Your task to perform on an android device: Go to sound settings Image 0: 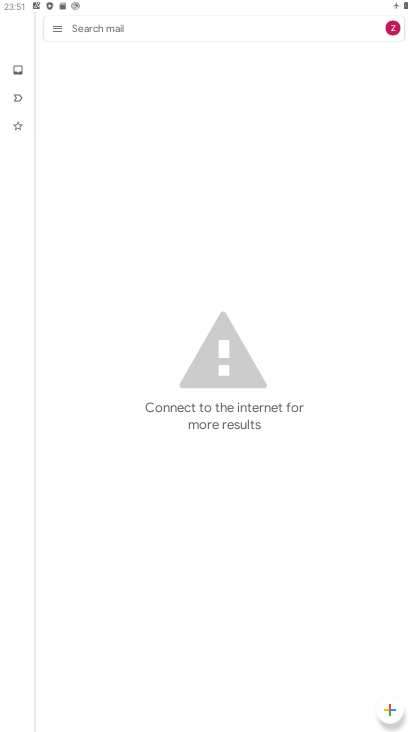
Step 0: press home button
Your task to perform on an android device: Go to sound settings Image 1: 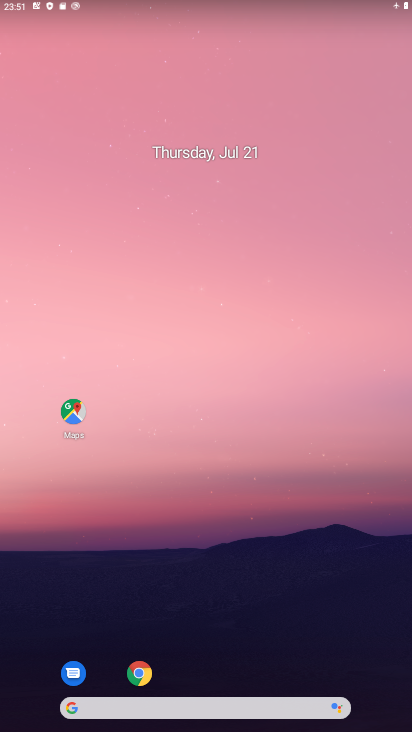
Step 1: drag from (214, 639) to (218, 229)
Your task to perform on an android device: Go to sound settings Image 2: 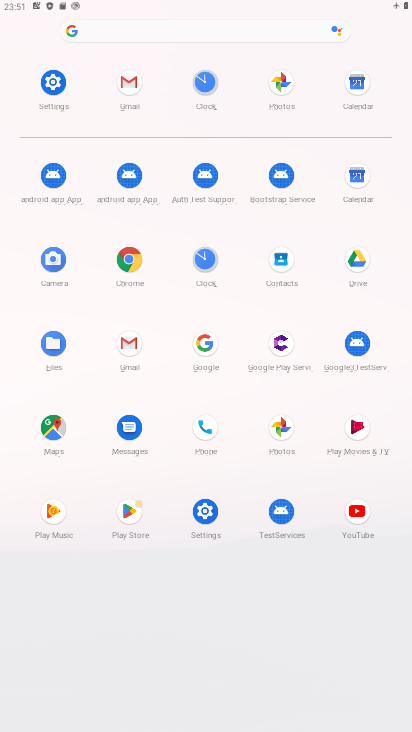
Step 2: click (62, 79)
Your task to perform on an android device: Go to sound settings Image 3: 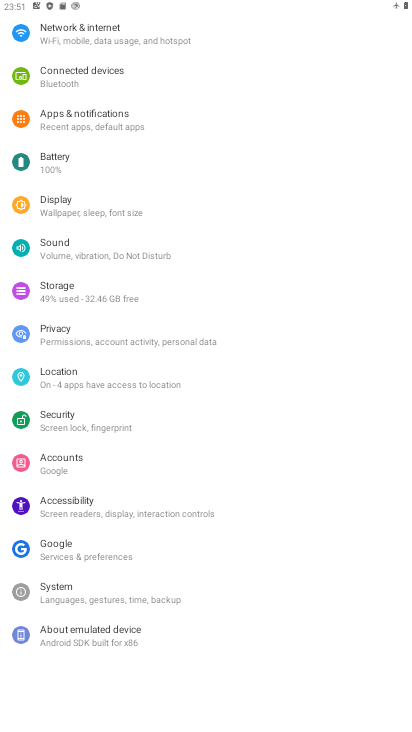
Step 3: click (60, 260)
Your task to perform on an android device: Go to sound settings Image 4: 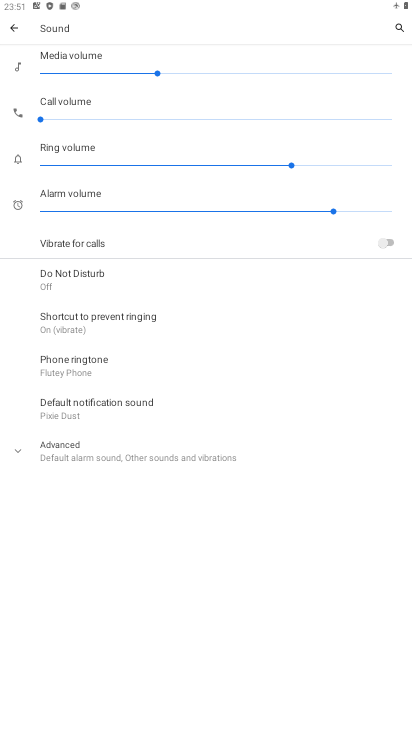
Step 4: task complete